Your task to perform on an android device: Open Chrome and go to settings Image 0: 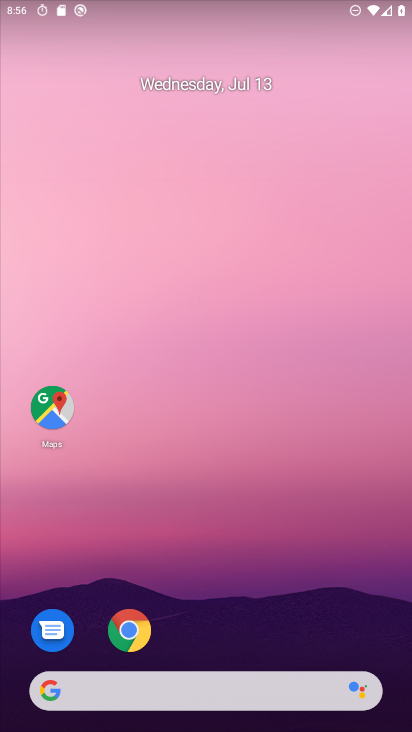
Step 0: drag from (384, 665) to (213, 31)
Your task to perform on an android device: Open Chrome and go to settings Image 1: 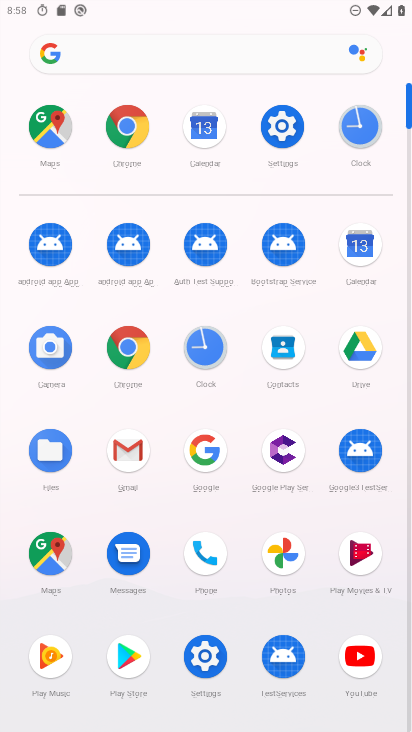
Step 1: click (129, 346)
Your task to perform on an android device: Open Chrome and go to settings Image 2: 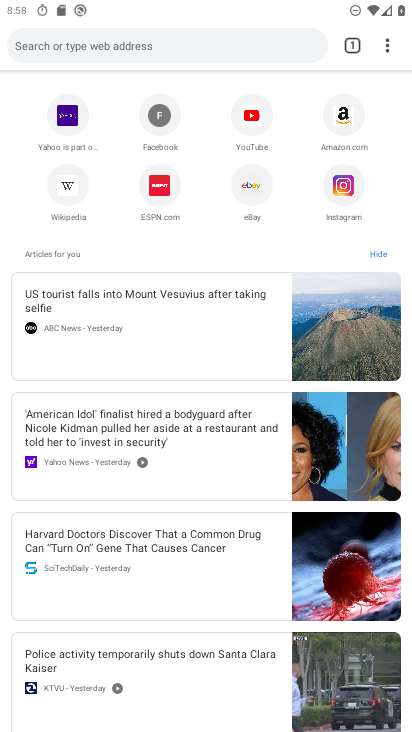
Step 2: click (383, 42)
Your task to perform on an android device: Open Chrome and go to settings Image 3: 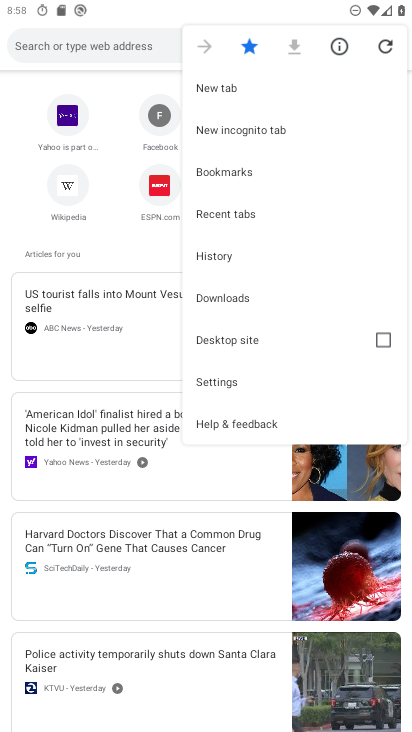
Step 3: click (243, 380)
Your task to perform on an android device: Open Chrome and go to settings Image 4: 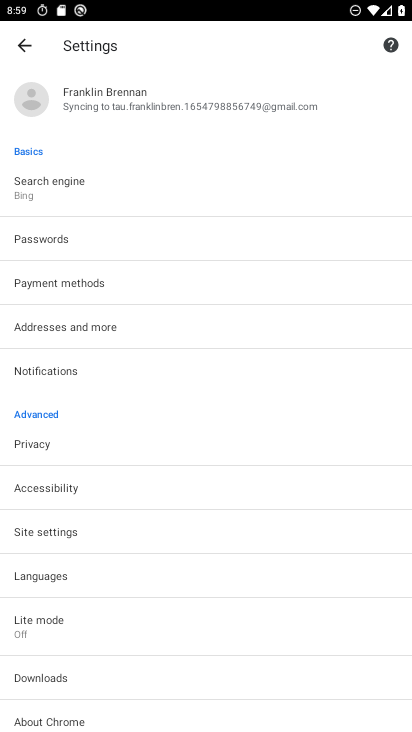
Step 4: task complete